Your task to perform on an android device: move an email to a new category in the gmail app Image 0: 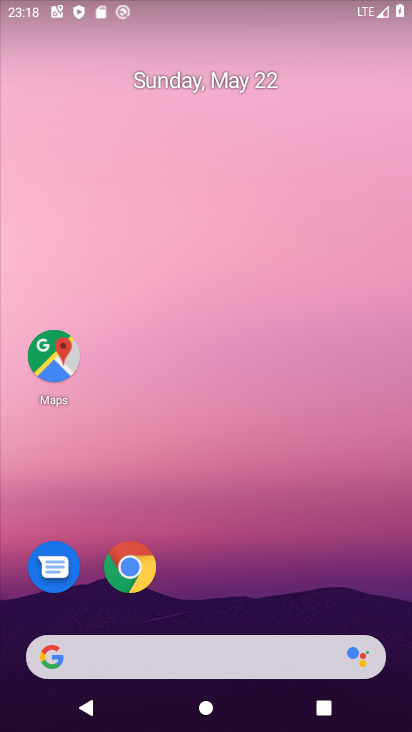
Step 0: drag from (256, 565) to (224, 48)
Your task to perform on an android device: move an email to a new category in the gmail app Image 1: 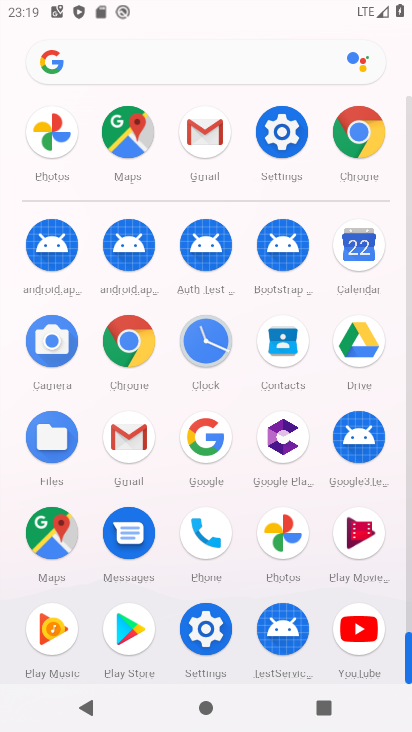
Step 1: drag from (3, 465) to (397, 293)
Your task to perform on an android device: move an email to a new category in the gmail app Image 2: 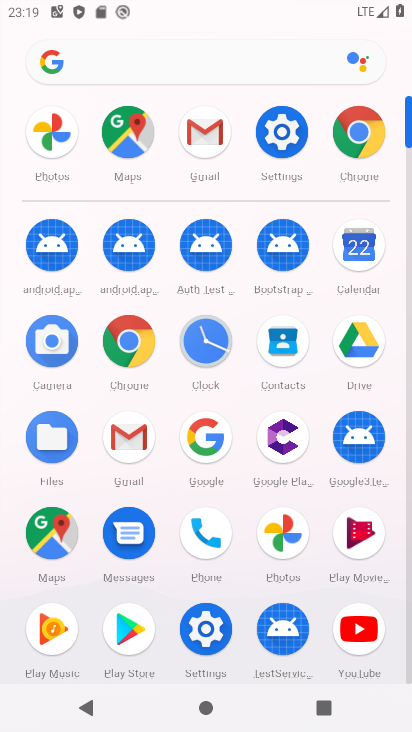
Step 2: click (118, 431)
Your task to perform on an android device: move an email to a new category in the gmail app Image 3: 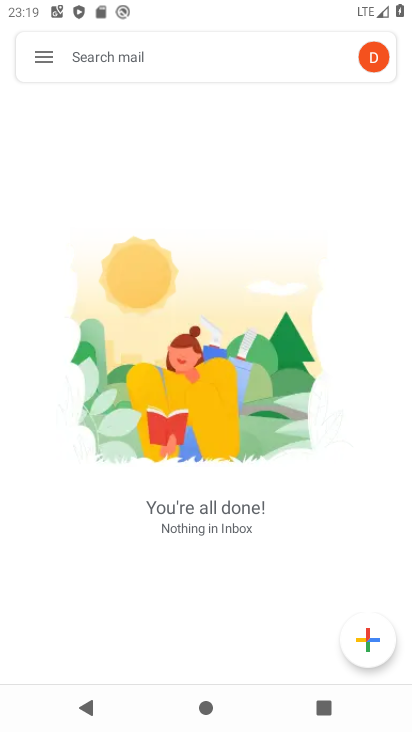
Step 3: click (38, 55)
Your task to perform on an android device: move an email to a new category in the gmail app Image 4: 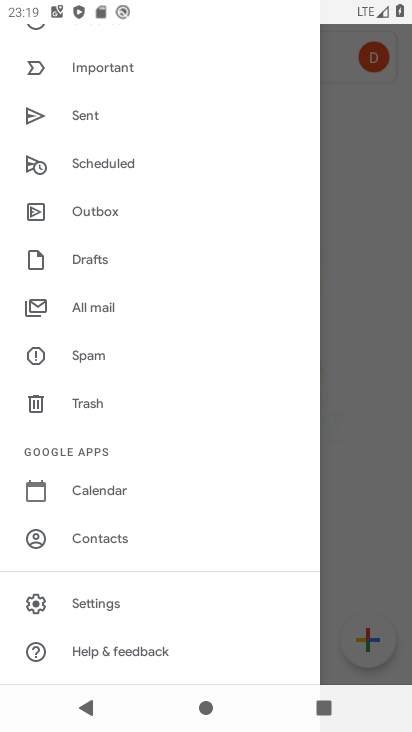
Step 4: click (122, 297)
Your task to perform on an android device: move an email to a new category in the gmail app Image 5: 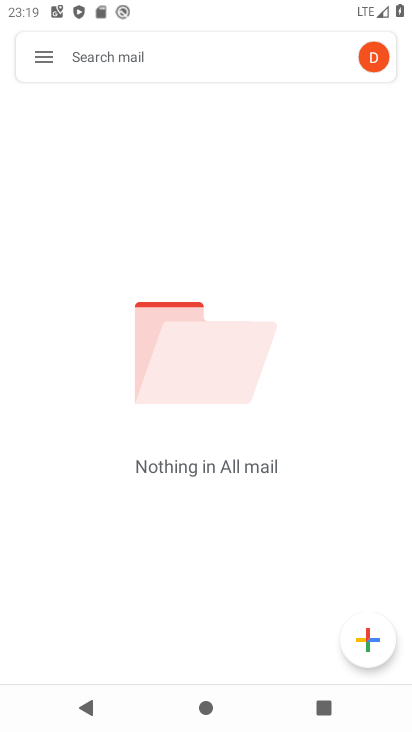
Step 5: click (44, 52)
Your task to perform on an android device: move an email to a new category in the gmail app Image 6: 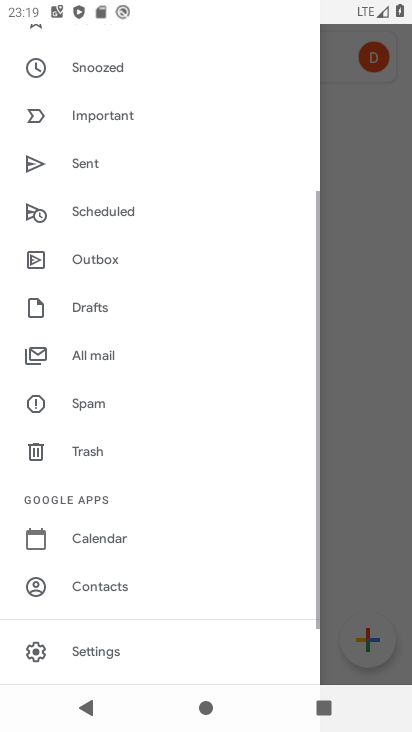
Step 6: drag from (125, 124) to (172, 593)
Your task to perform on an android device: move an email to a new category in the gmail app Image 7: 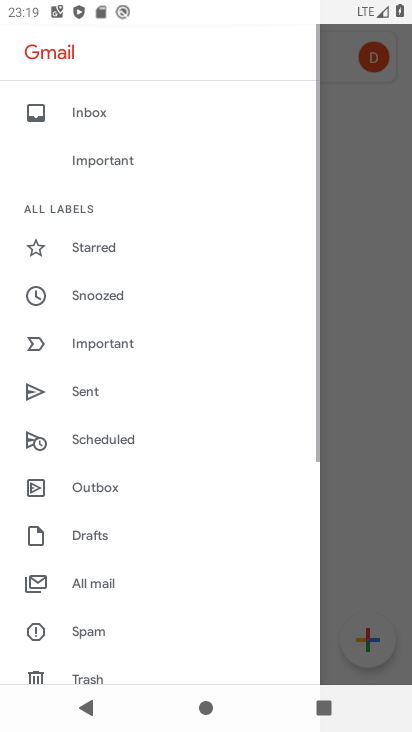
Step 7: drag from (199, 483) to (200, 594)
Your task to perform on an android device: move an email to a new category in the gmail app Image 8: 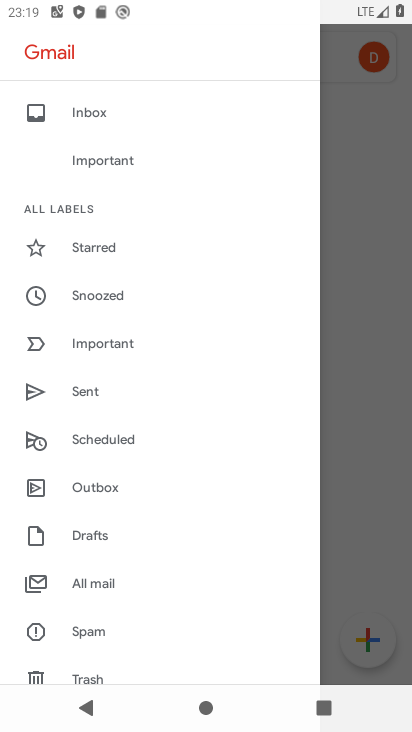
Step 8: click (148, 106)
Your task to perform on an android device: move an email to a new category in the gmail app Image 9: 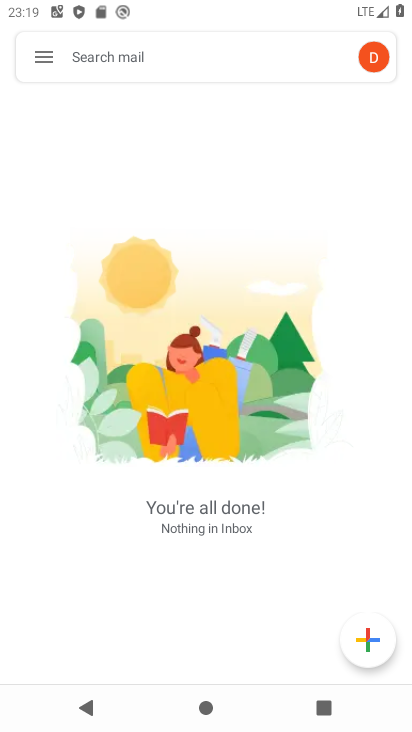
Step 9: click (46, 54)
Your task to perform on an android device: move an email to a new category in the gmail app Image 10: 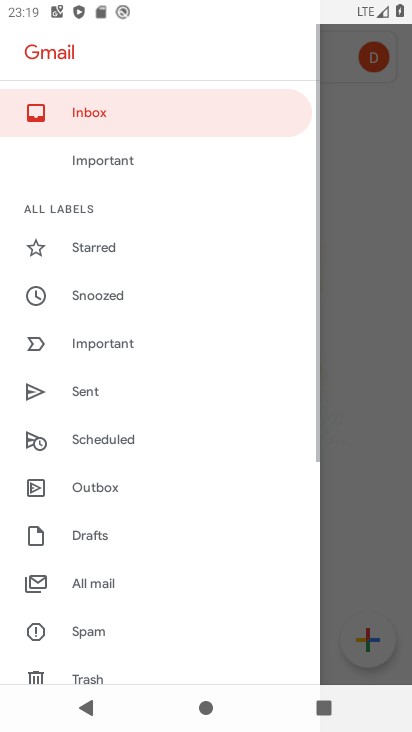
Step 10: drag from (176, 609) to (185, 86)
Your task to perform on an android device: move an email to a new category in the gmail app Image 11: 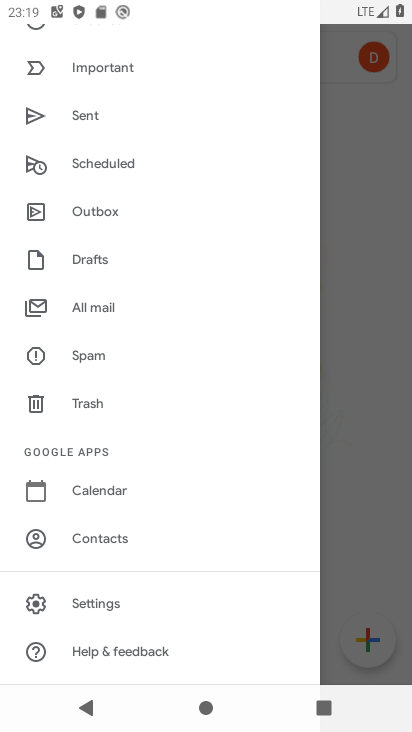
Step 11: click (117, 298)
Your task to perform on an android device: move an email to a new category in the gmail app Image 12: 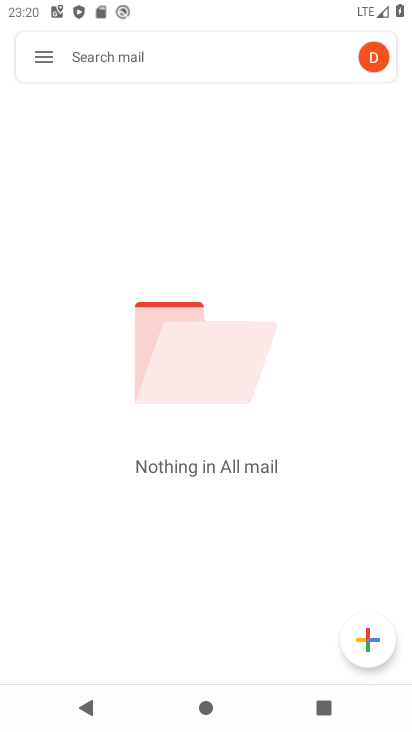
Step 12: task complete